Your task to perform on an android device: Clear the cart on target.com. Add razer nari to the cart on target.com, then select checkout. Image 0: 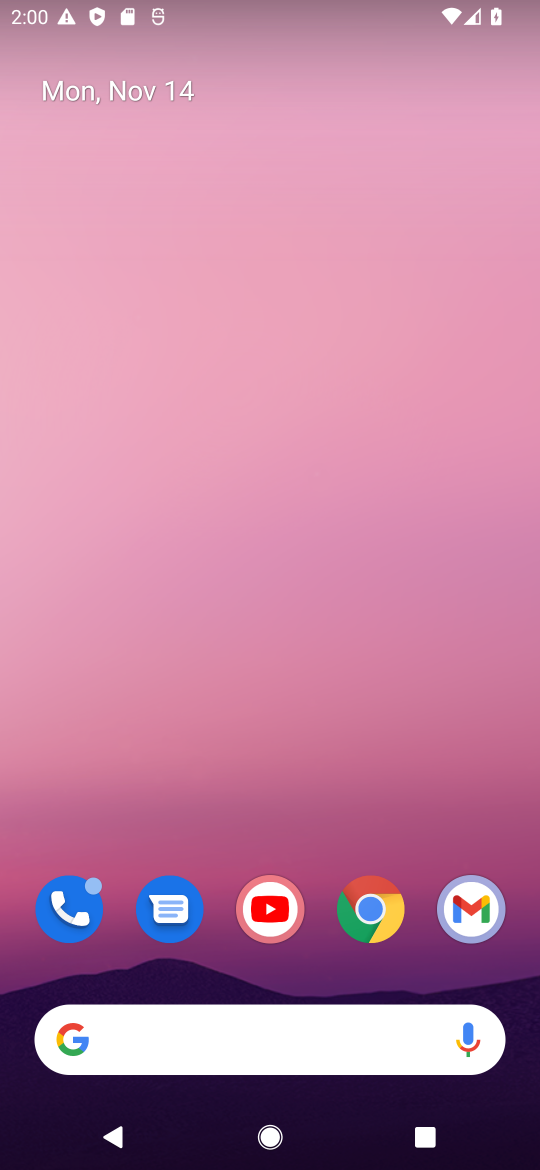
Step 0: drag from (331, 965) to (387, 14)
Your task to perform on an android device: Clear the cart on target.com. Add razer nari to the cart on target.com, then select checkout. Image 1: 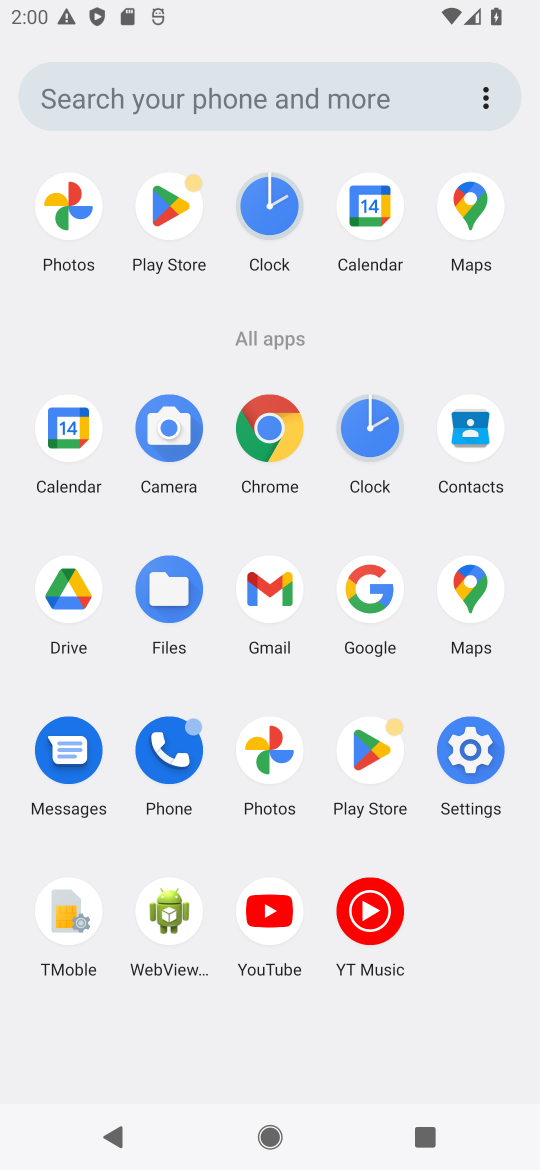
Step 1: click (264, 433)
Your task to perform on an android device: Clear the cart on target.com. Add razer nari to the cart on target.com, then select checkout. Image 2: 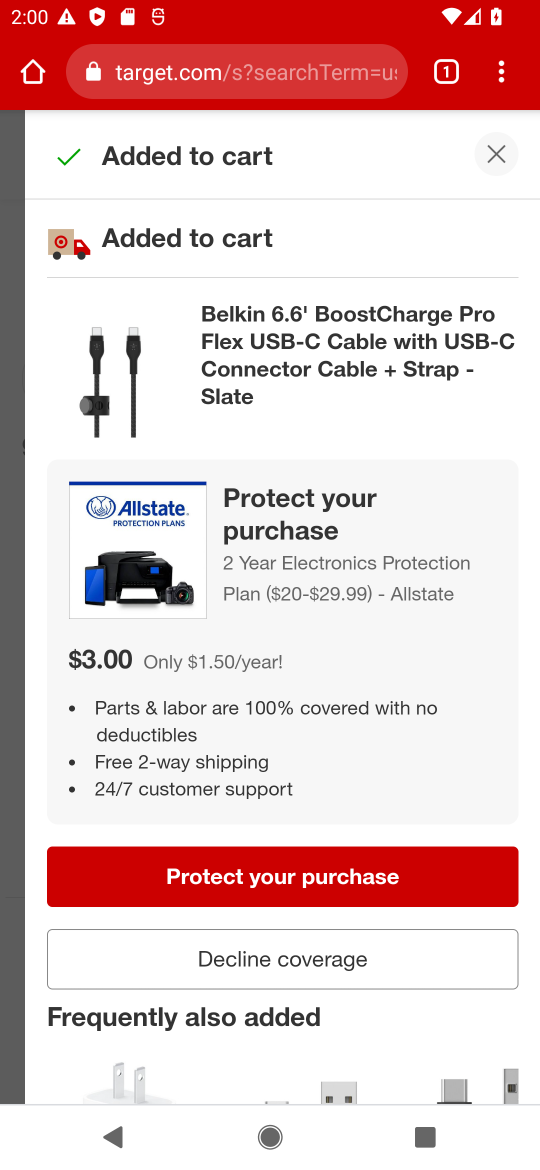
Step 2: click (327, 77)
Your task to perform on an android device: Clear the cart on target.com. Add razer nari to the cart on target.com, then select checkout. Image 3: 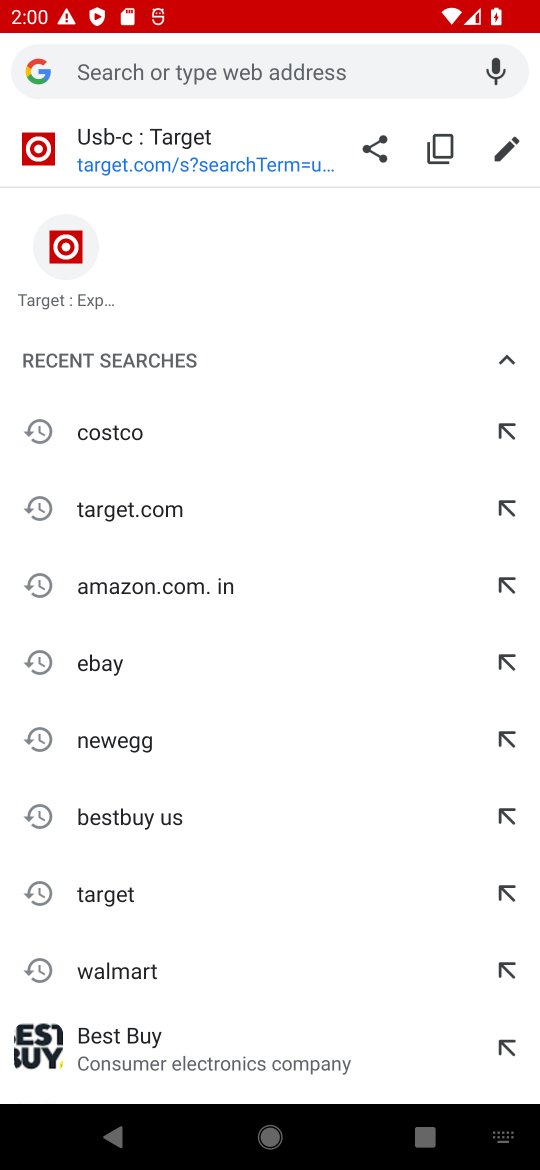
Step 3: type "target.com"
Your task to perform on an android device: Clear the cart on target.com. Add razer nari to the cart on target.com, then select checkout. Image 4: 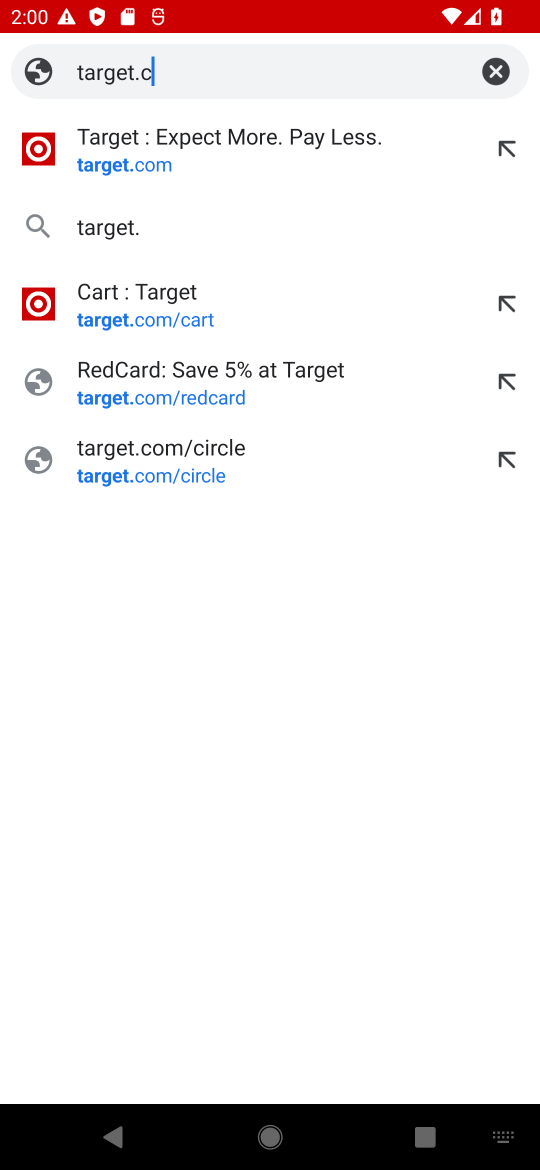
Step 4: press enter
Your task to perform on an android device: Clear the cart on target.com. Add razer nari to the cart on target.com, then select checkout. Image 5: 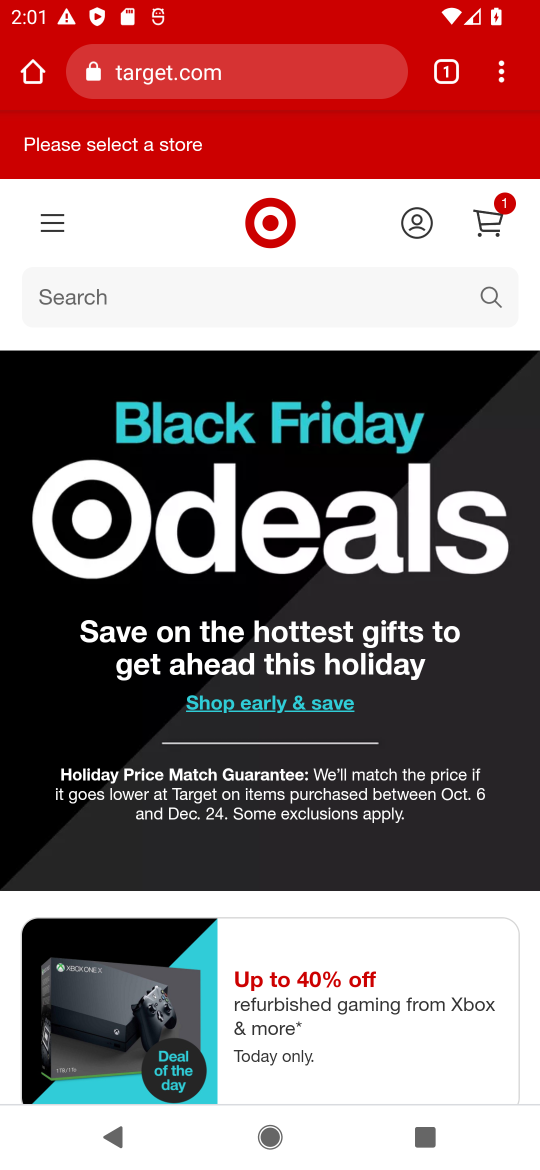
Step 5: click (492, 213)
Your task to perform on an android device: Clear the cart on target.com. Add razer nari to the cart on target.com, then select checkout. Image 6: 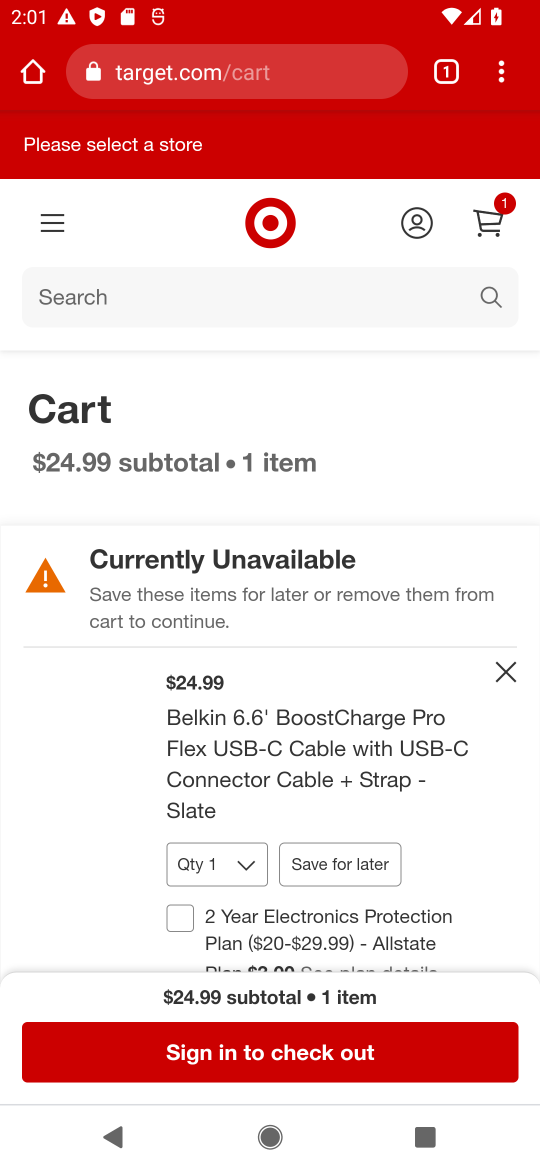
Step 6: click (518, 663)
Your task to perform on an android device: Clear the cart on target.com. Add razer nari to the cart on target.com, then select checkout. Image 7: 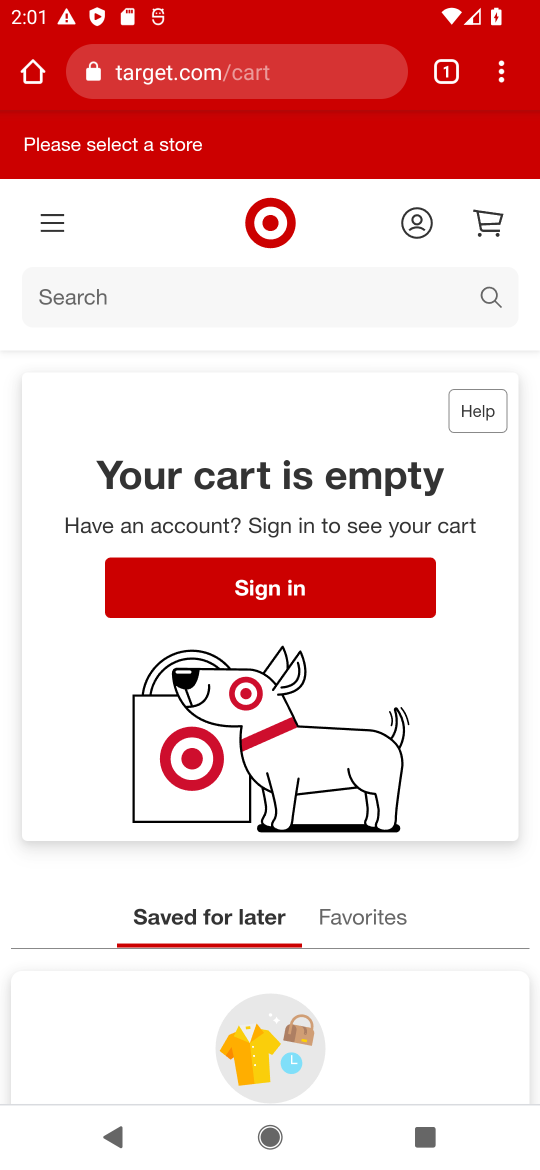
Step 7: click (286, 294)
Your task to perform on an android device: Clear the cart on target.com. Add razer nari to the cart on target.com, then select checkout. Image 8: 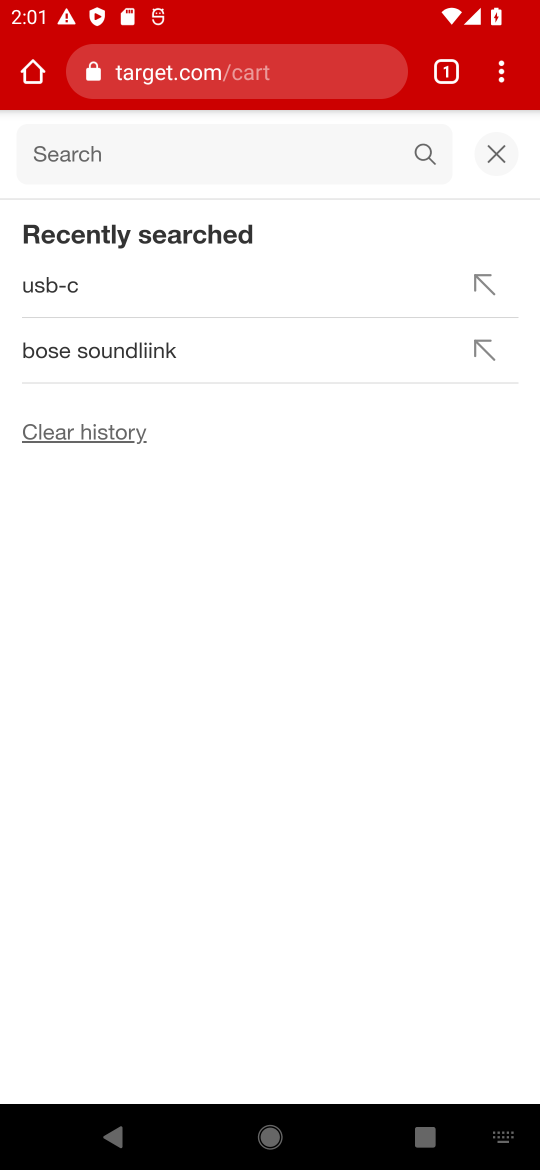
Step 8: type "razer nari"
Your task to perform on an android device: Clear the cart on target.com. Add razer nari to the cart on target.com, then select checkout. Image 9: 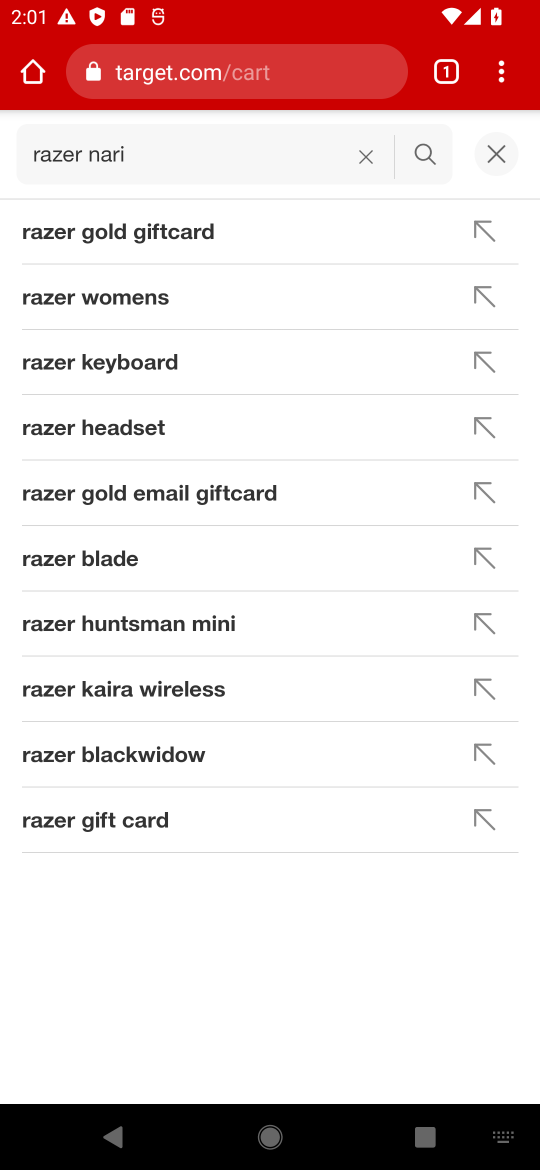
Step 9: press enter
Your task to perform on an android device: Clear the cart on target.com. Add razer nari to the cart on target.com, then select checkout. Image 10: 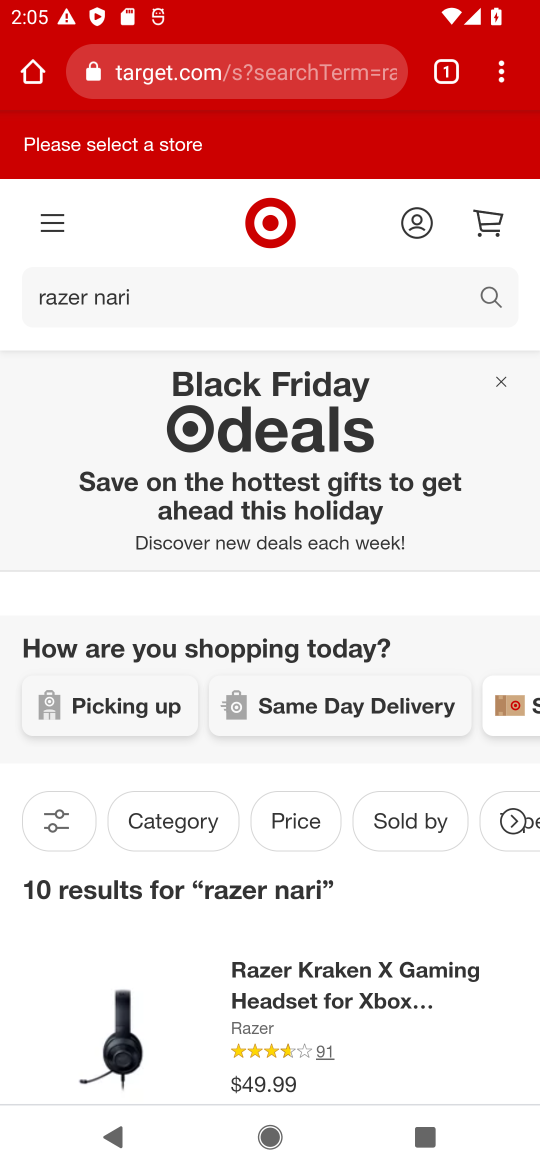
Step 10: task complete